Your task to perform on an android device: turn off airplane mode Image 0: 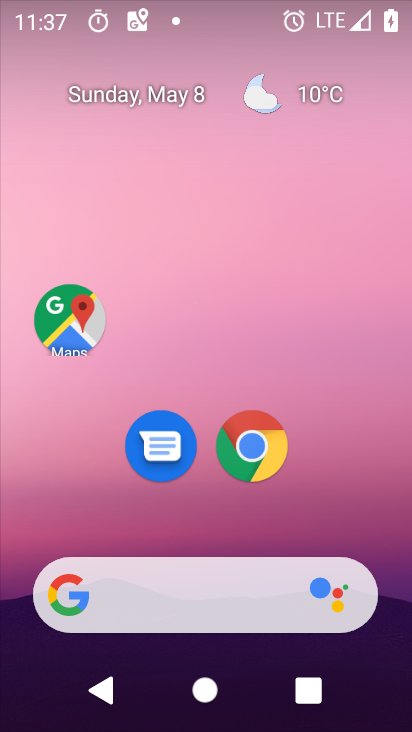
Step 0: drag from (350, 544) to (320, 0)
Your task to perform on an android device: turn off airplane mode Image 1: 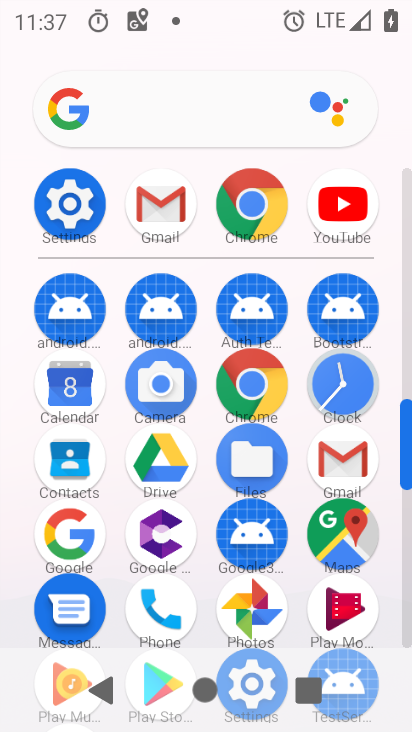
Step 1: click (72, 200)
Your task to perform on an android device: turn off airplane mode Image 2: 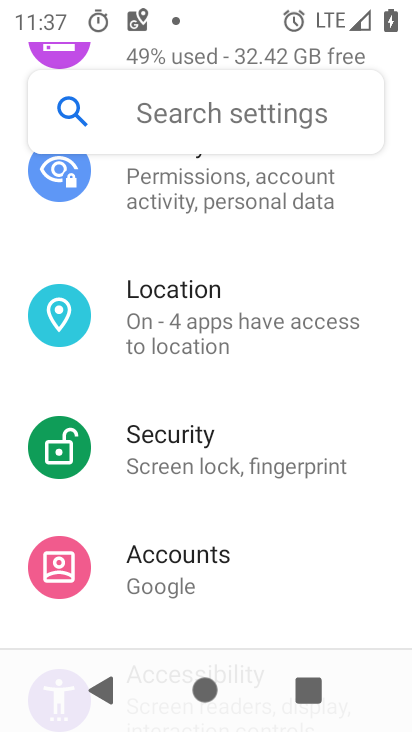
Step 2: drag from (330, 257) to (326, 487)
Your task to perform on an android device: turn off airplane mode Image 3: 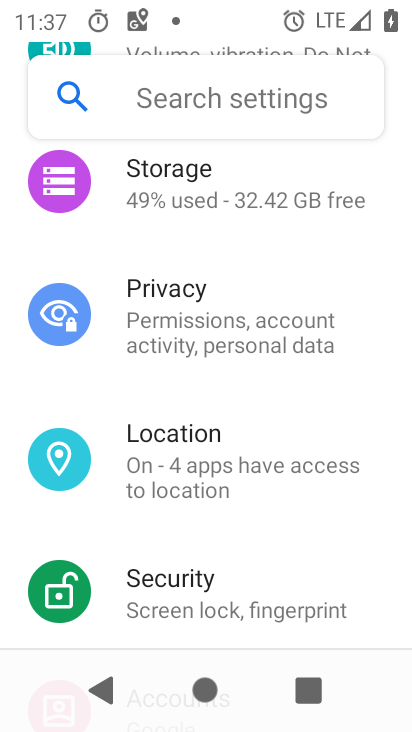
Step 3: drag from (347, 245) to (332, 532)
Your task to perform on an android device: turn off airplane mode Image 4: 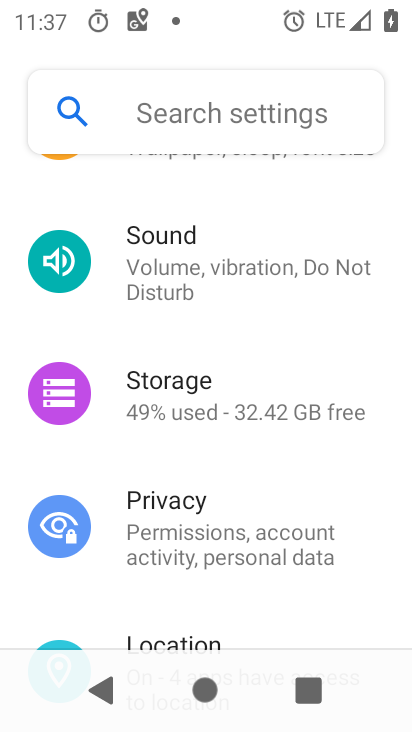
Step 4: drag from (335, 305) to (326, 565)
Your task to perform on an android device: turn off airplane mode Image 5: 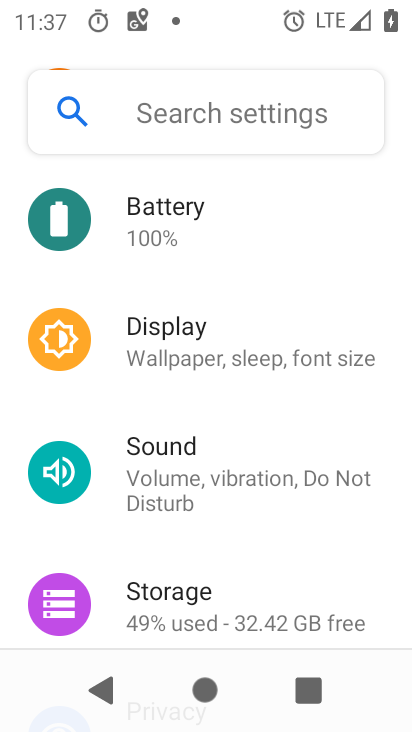
Step 5: drag from (318, 290) to (337, 564)
Your task to perform on an android device: turn off airplane mode Image 6: 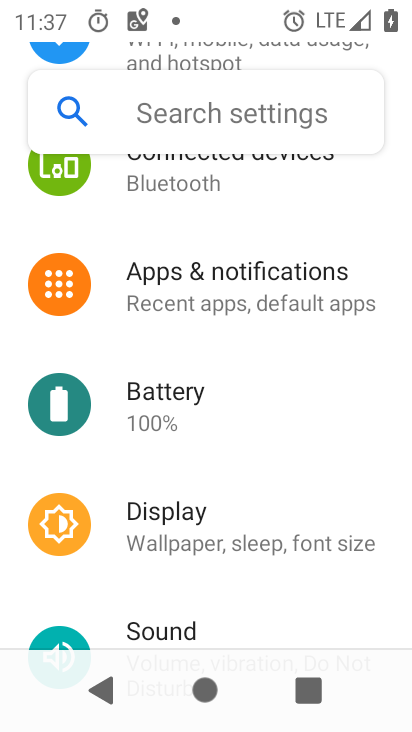
Step 6: drag from (318, 238) to (321, 527)
Your task to perform on an android device: turn off airplane mode Image 7: 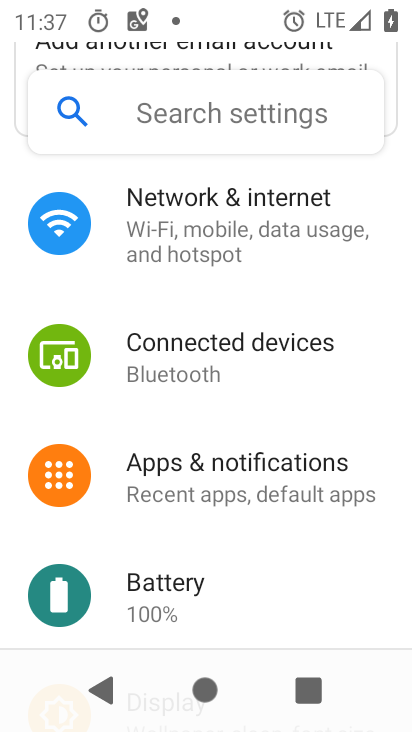
Step 7: drag from (264, 313) to (264, 526)
Your task to perform on an android device: turn off airplane mode Image 8: 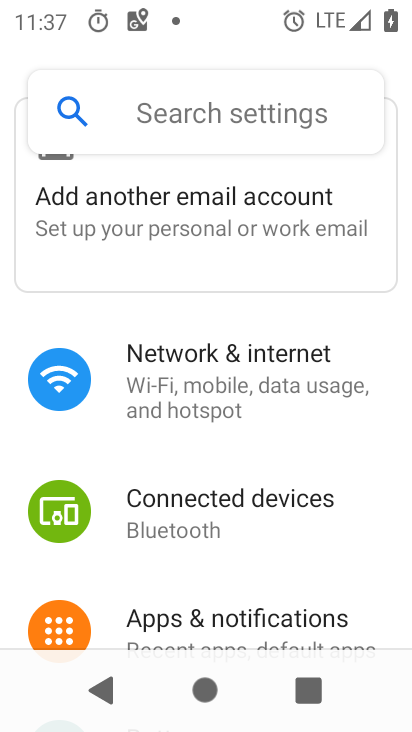
Step 8: click (200, 366)
Your task to perform on an android device: turn off airplane mode Image 9: 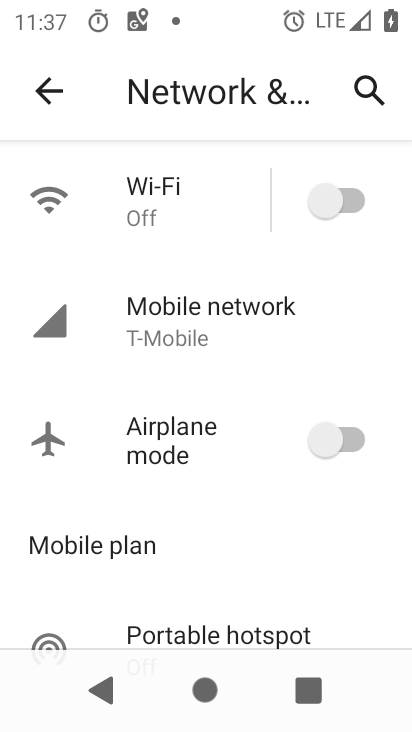
Step 9: task complete